Your task to perform on an android device: Open Google Chrome Image 0: 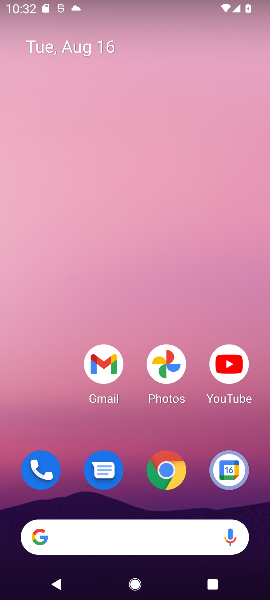
Step 0: click (166, 475)
Your task to perform on an android device: Open Google Chrome Image 1: 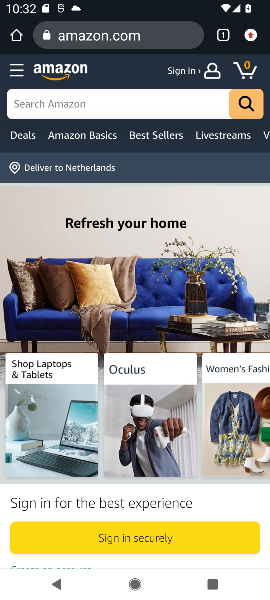
Step 1: task complete